Your task to perform on an android device: Add usb-a to usb-b to the cart on bestbuy.com, then select checkout. Image 0: 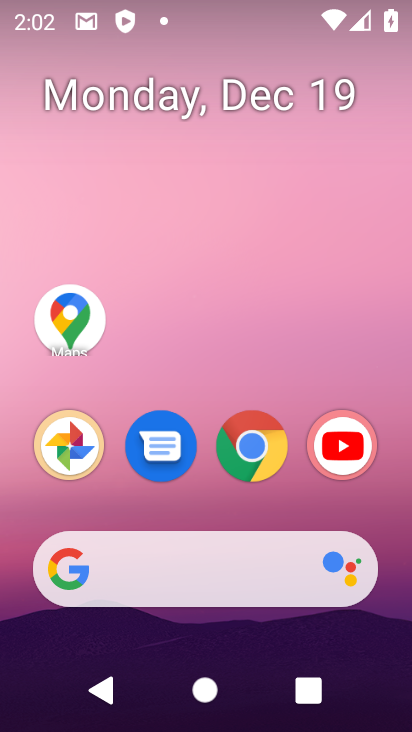
Step 0: click (278, 457)
Your task to perform on an android device: Add usb-a to usb-b to the cart on bestbuy.com, then select checkout. Image 1: 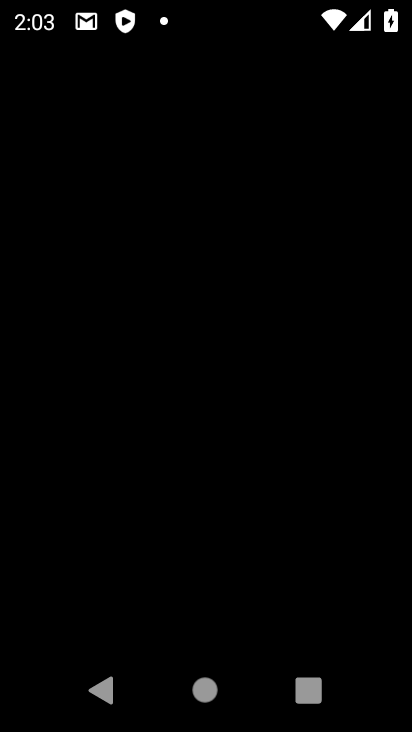
Step 1: press home button
Your task to perform on an android device: Add usb-a to usb-b to the cart on bestbuy.com, then select checkout. Image 2: 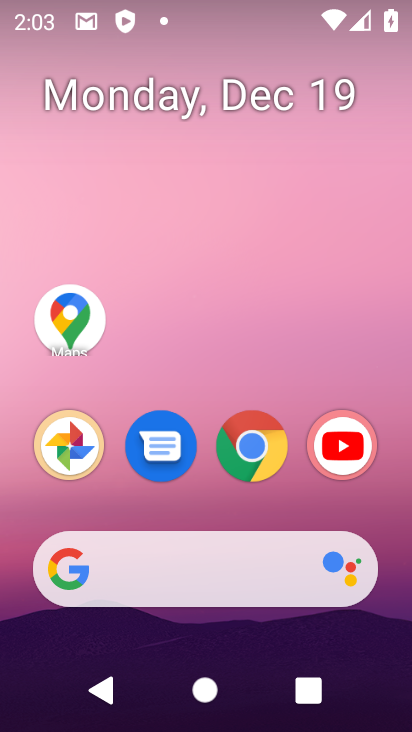
Step 2: click (236, 469)
Your task to perform on an android device: Add usb-a to usb-b to the cart on bestbuy.com, then select checkout. Image 3: 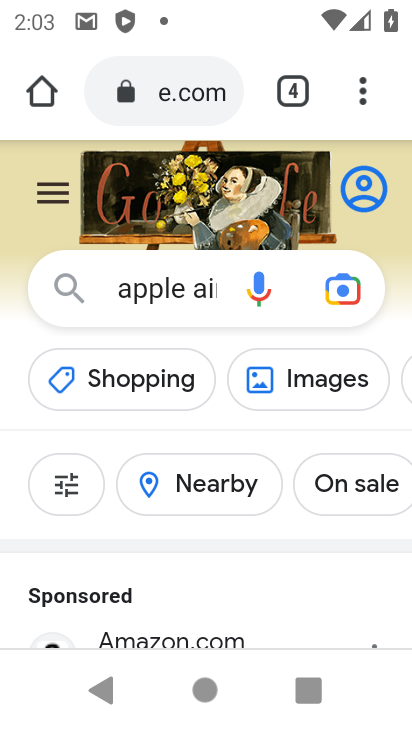
Step 3: click (172, 87)
Your task to perform on an android device: Add usb-a to usb-b to the cart on bestbuy.com, then select checkout. Image 4: 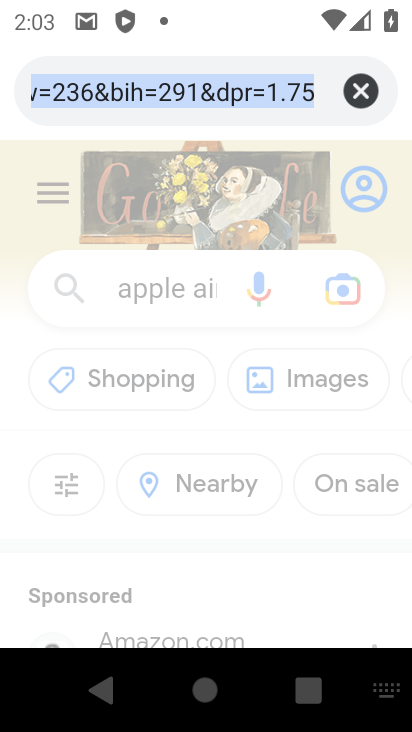
Step 4: task complete